Your task to perform on an android device: turn off location Image 0: 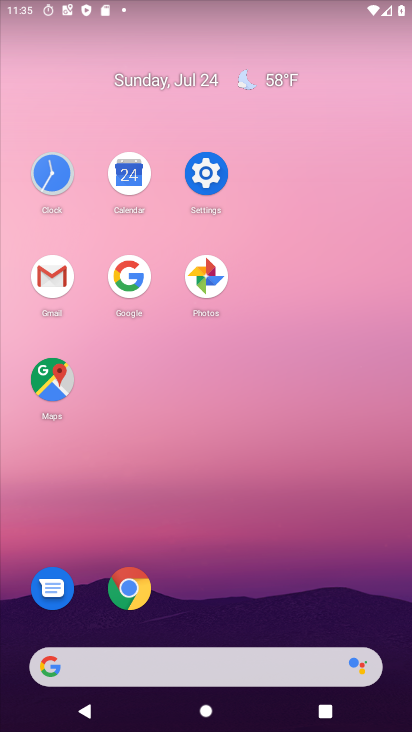
Step 0: click (204, 167)
Your task to perform on an android device: turn off location Image 1: 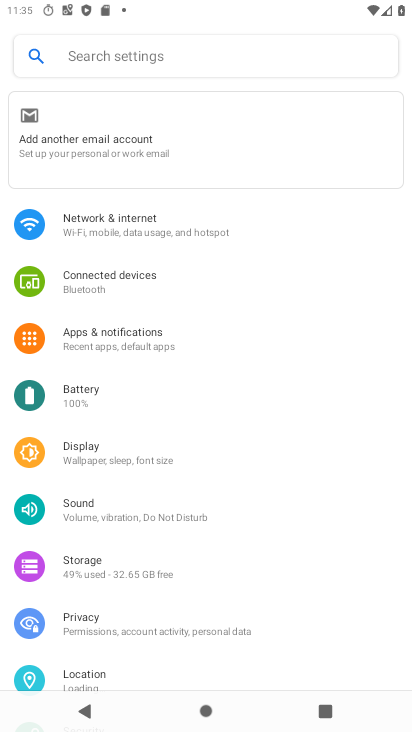
Step 1: click (114, 663)
Your task to perform on an android device: turn off location Image 2: 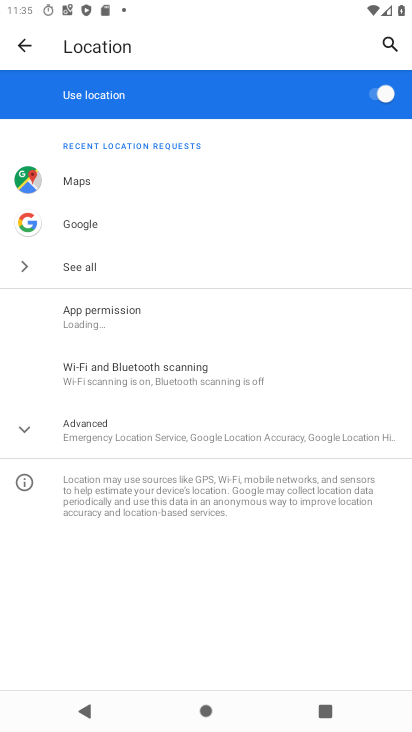
Step 2: click (389, 90)
Your task to perform on an android device: turn off location Image 3: 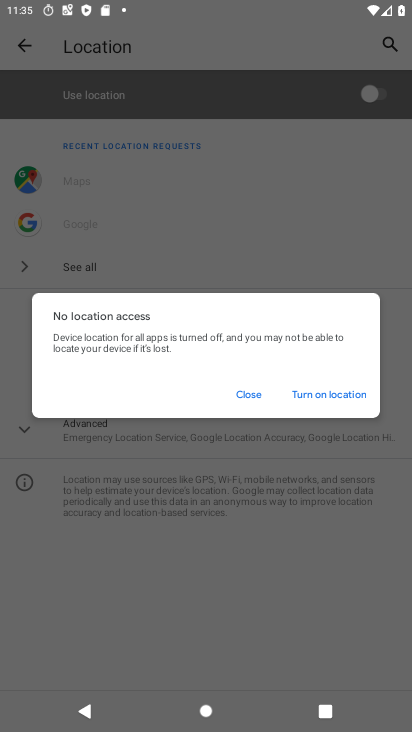
Step 3: task complete